Your task to perform on an android device: add a contact in the contacts app Image 0: 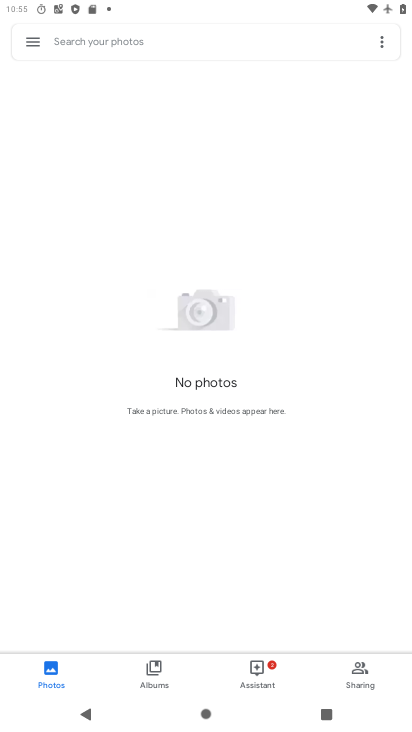
Step 0: press home button
Your task to perform on an android device: add a contact in the contacts app Image 1: 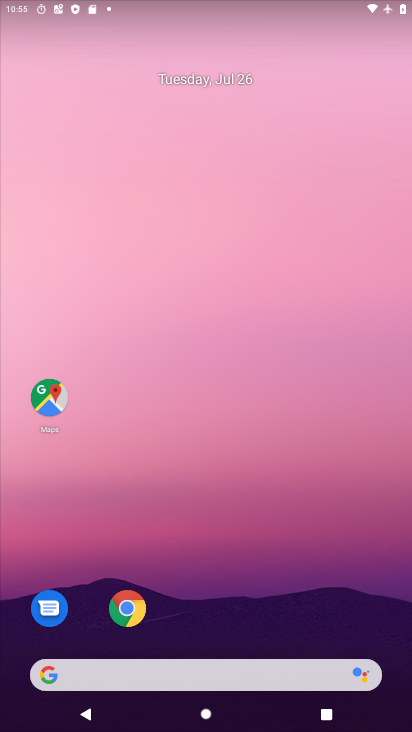
Step 1: drag from (228, 595) to (217, 172)
Your task to perform on an android device: add a contact in the contacts app Image 2: 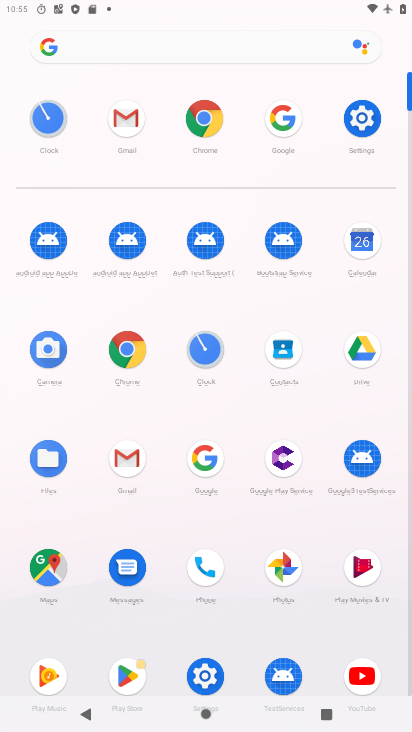
Step 2: click (275, 341)
Your task to perform on an android device: add a contact in the contacts app Image 3: 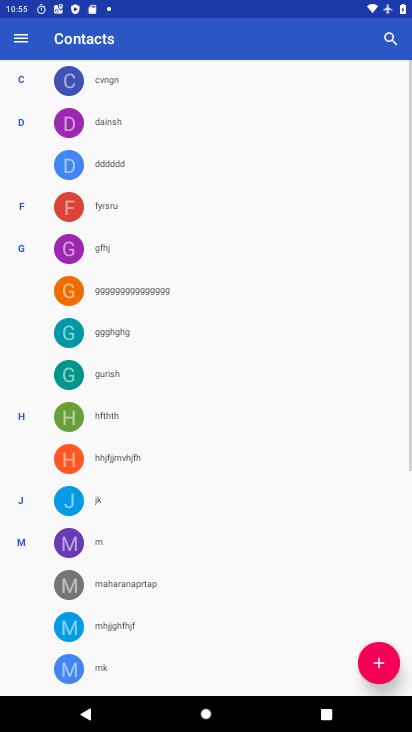
Step 3: click (386, 661)
Your task to perform on an android device: add a contact in the contacts app Image 4: 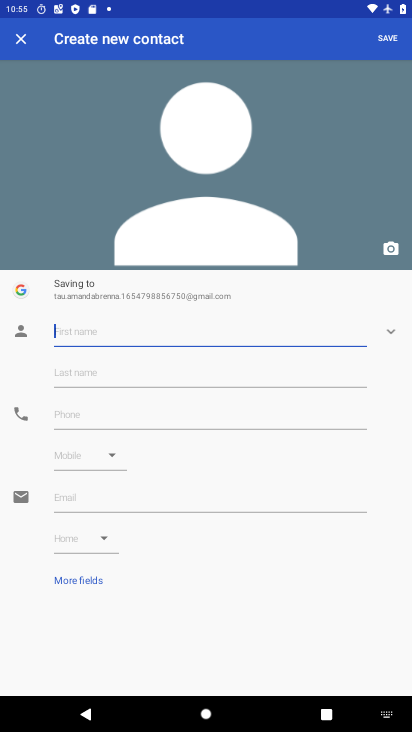
Step 4: type "jdthftyhr"
Your task to perform on an android device: add a contact in the contacts app Image 5: 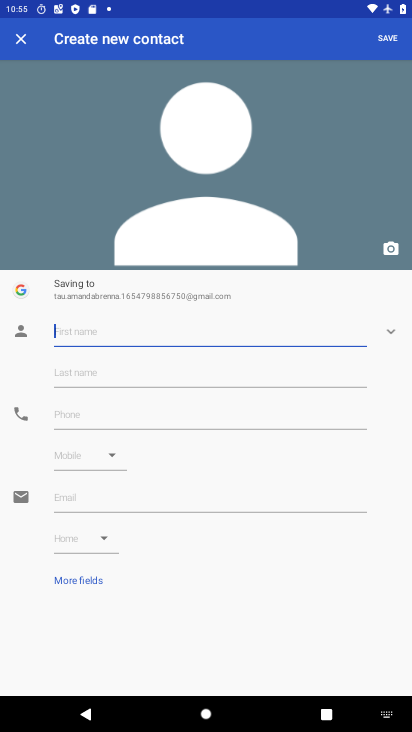
Step 5: click (170, 417)
Your task to perform on an android device: add a contact in the contacts app Image 6: 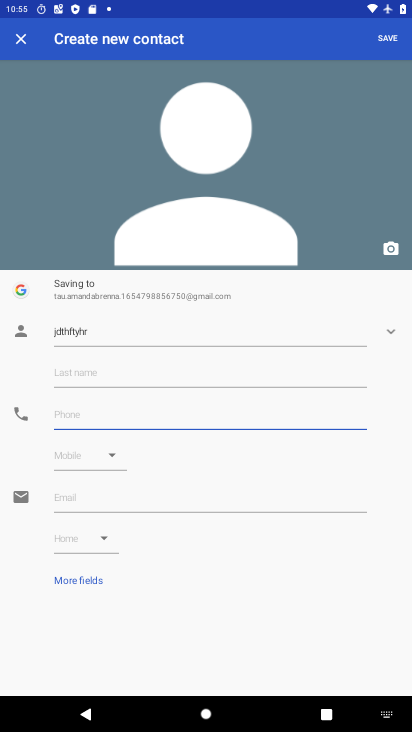
Step 6: type "6585657456"
Your task to perform on an android device: add a contact in the contacts app Image 7: 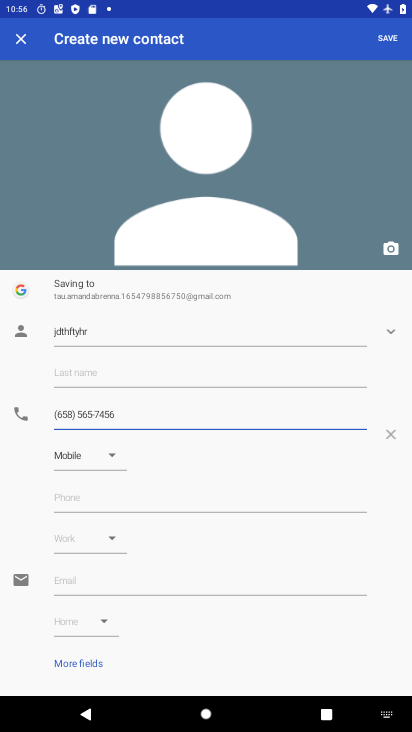
Step 7: click (374, 31)
Your task to perform on an android device: add a contact in the contacts app Image 8: 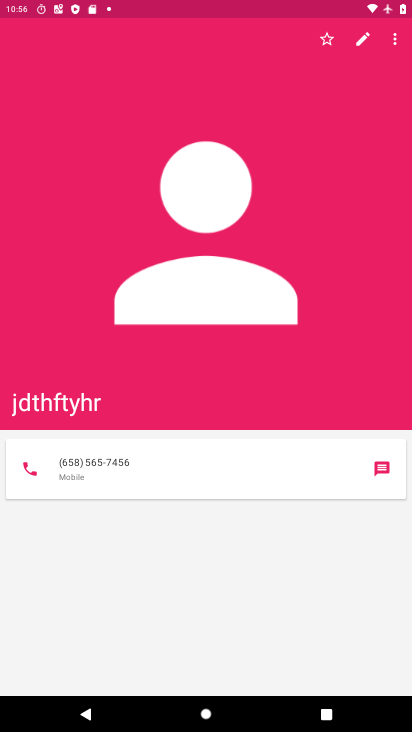
Step 8: task complete